Your task to perform on an android device: Clear the cart on walmart.com. Search for usb-b on walmart.com, select the first entry, add it to the cart, then select checkout. Image 0: 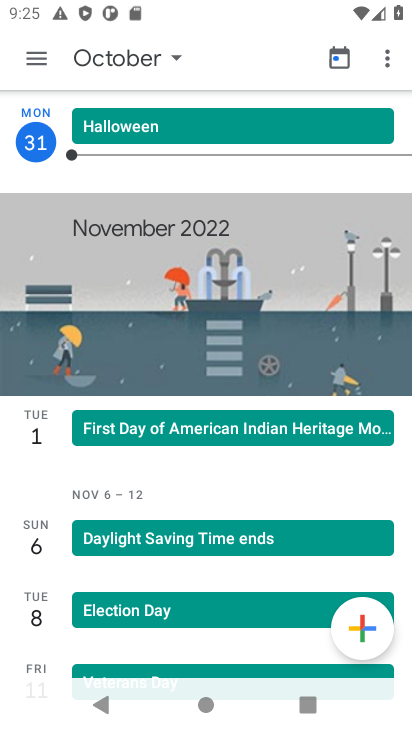
Step 0: press home button
Your task to perform on an android device: Clear the cart on walmart.com. Search for usb-b on walmart.com, select the first entry, add it to the cart, then select checkout. Image 1: 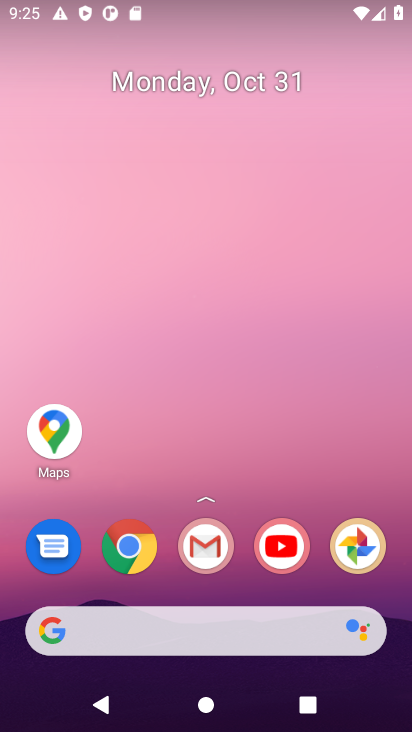
Step 1: click (122, 550)
Your task to perform on an android device: Clear the cart on walmart.com. Search for usb-b on walmart.com, select the first entry, add it to the cart, then select checkout. Image 2: 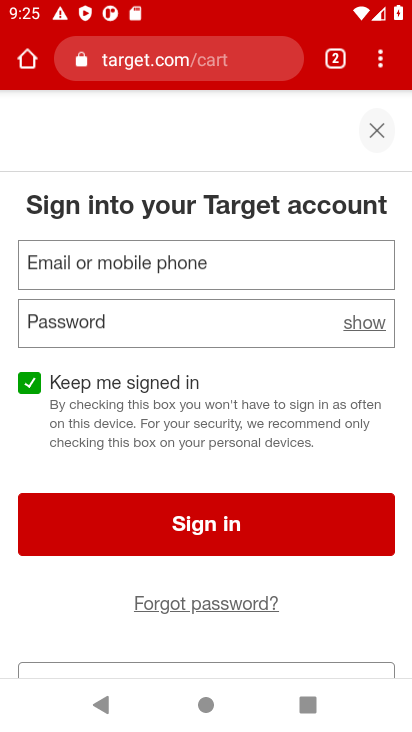
Step 2: click (154, 60)
Your task to perform on an android device: Clear the cart on walmart.com. Search for usb-b on walmart.com, select the first entry, add it to the cart, then select checkout. Image 3: 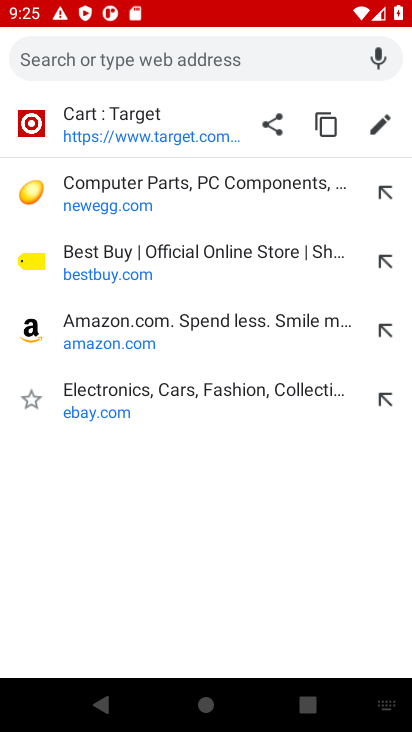
Step 3: type "walmart.com"
Your task to perform on an android device: Clear the cart on walmart.com. Search for usb-b on walmart.com, select the first entry, add it to the cart, then select checkout. Image 4: 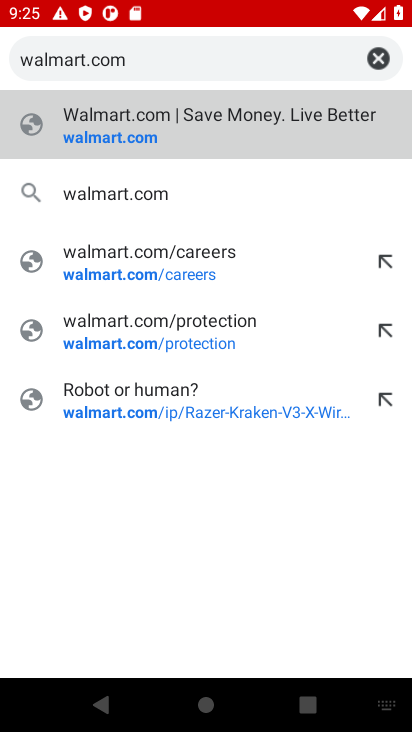
Step 4: press enter
Your task to perform on an android device: Clear the cart on walmart.com. Search for usb-b on walmart.com, select the first entry, add it to the cart, then select checkout. Image 5: 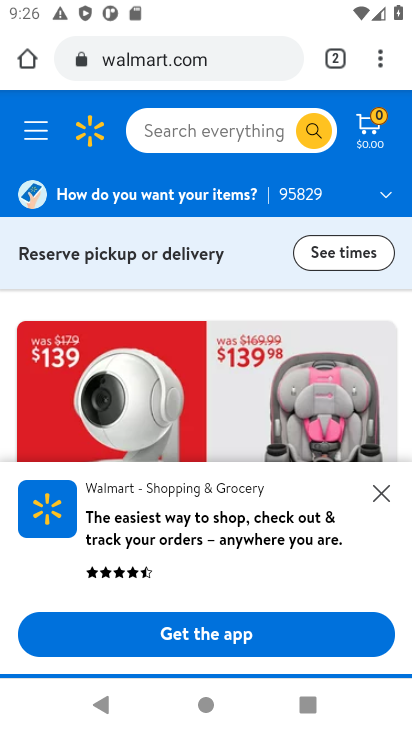
Step 5: click (373, 498)
Your task to perform on an android device: Clear the cart on walmart.com. Search for usb-b on walmart.com, select the first entry, add it to the cart, then select checkout. Image 6: 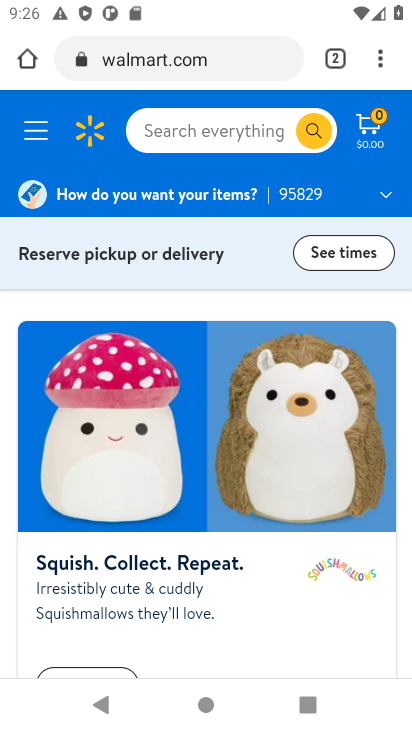
Step 6: drag from (171, 559) to (157, 240)
Your task to perform on an android device: Clear the cart on walmart.com. Search for usb-b on walmart.com, select the first entry, add it to the cart, then select checkout. Image 7: 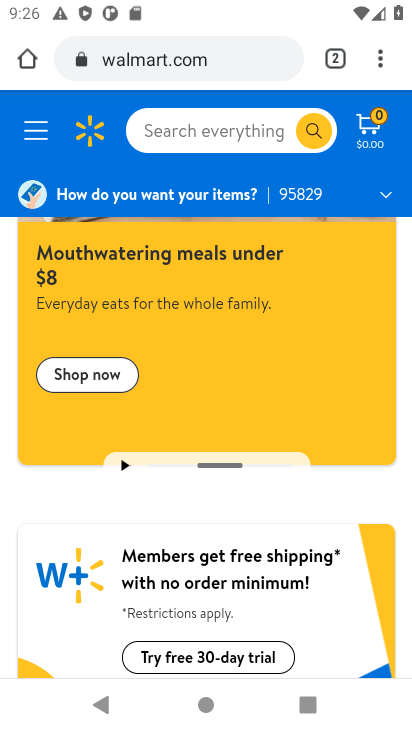
Step 7: drag from (198, 563) to (269, 224)
Your task to perform on an android device: Clear the cart on walmart.com. Search for usb-b on walmart.com, select the first entry, add it to the cart, then select checkout. Image 8: 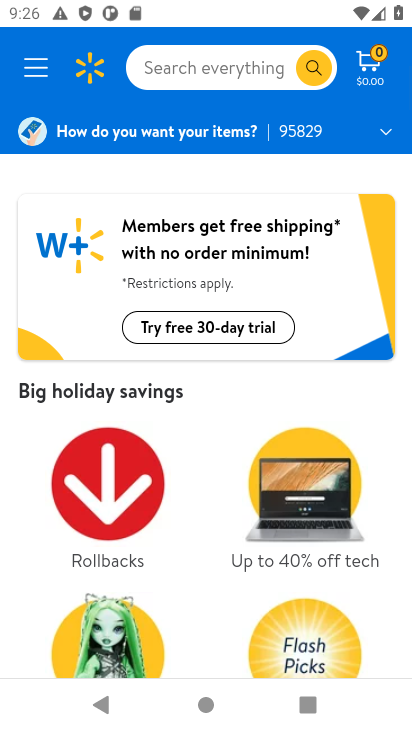
Step 8: drag from (226, 455) to (237, 235)
Your task to perform on an android device: Clear the cart on walmart.com. Search for usb-b on walmart.com, select the first entry, add it to the cart, then select checkout. Image 9: 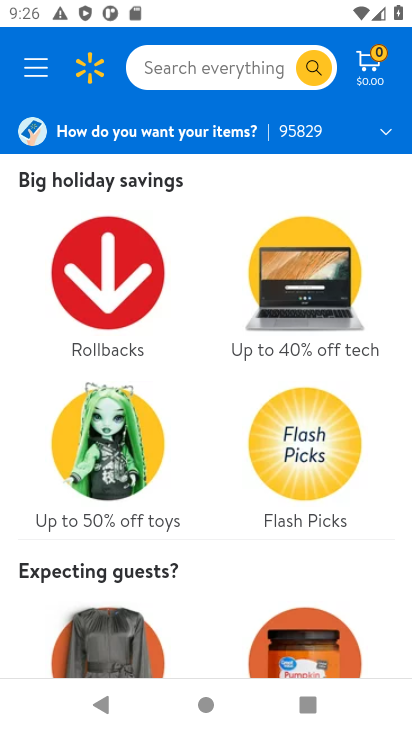
Step 9: drag from (222, 472) to (266, 248)
Your task to perform on an android device: Clear the cart on walmart.com. Search for usb-b on walmart.com, select the first entry, add it to the cart, then select checkout. Image 10: 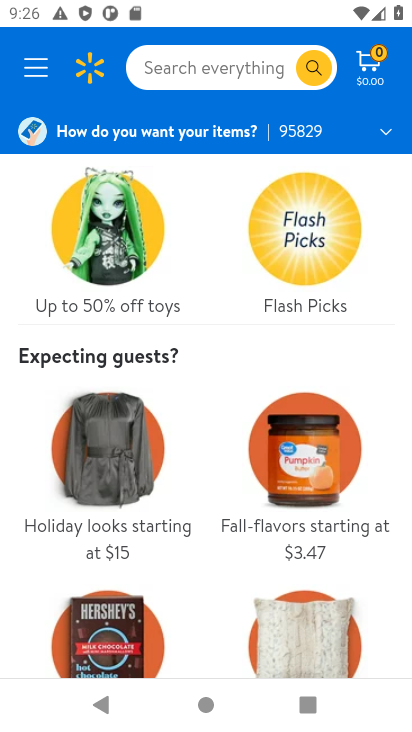
Step 10: click (219, 74)
Your task to perform on an android device: Clear the cart on walmart.com. Search for usb-b on walmart.com, select the first entry, add it to the cart, then select checkout. Image 11: 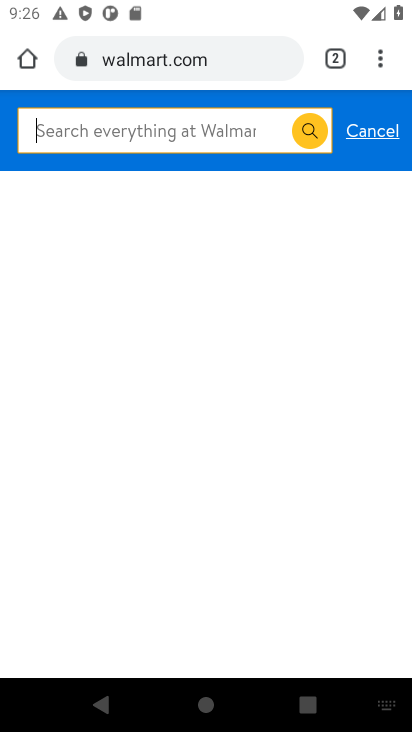
Step 11: type "usb-b"
Your task to perform on an android device: Clear the cart on walmart.com. Search for usb-b on walmart.com, select the first entry, add it to the cart, then select checkout. Image 12: 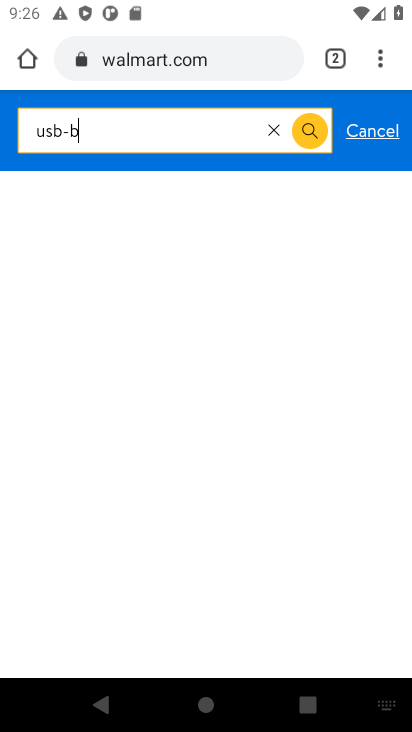
Step 12: press enter
Your task to perform on an android device: Clear the cart on walmart.com. Search for usb-b on walmart.com, select the first entry, add it to the cart, then select checkout. Image 13: 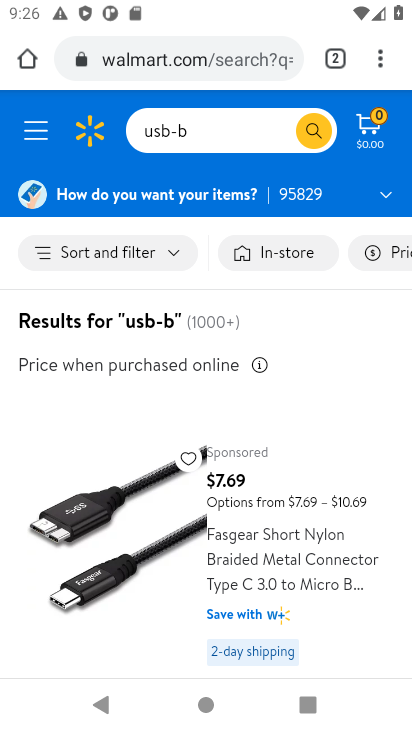
Step 13: drag from (191, 596) to (188, 244)
Your task to perform on an android device: Clear the cart on walmart.com. Search for usb-b on walmart.com, select the first entry, add it to the cart, then select checkout. Image 14: 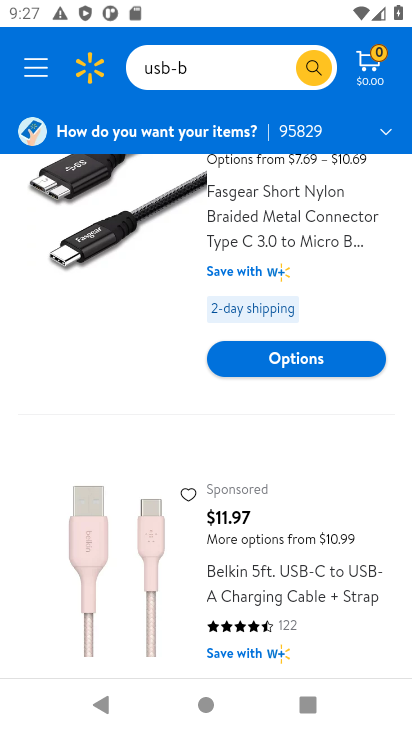
Step 14: drag from (198, 627) to (229, 270)
Your task to perform on an android device: Clear the cart on walmart.com. Search for usb-b on walmart.com, select the first entry, add it to the cart, then select checkout. Image 15: 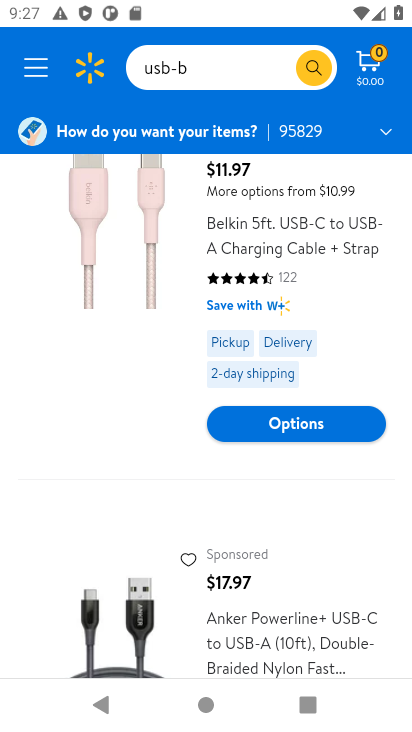
Step 15: drag from (269, 660) to (230, 336)
Your task to perform on an android device: Clear the cart on walmart.com. Search for usb-b on walmart.com, select the first entry, add it to the cart, then select checkout. Image 16: 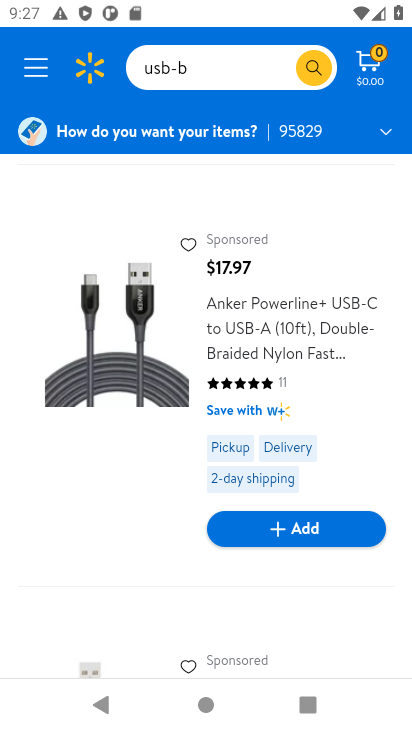
Step 16: click (201, 357)
Your task to perform on an android device: Clear the cart on walmart.com. Search for usb-b on walmart.com, select the first entry, add it to the cart, then select checkout. Image 17: 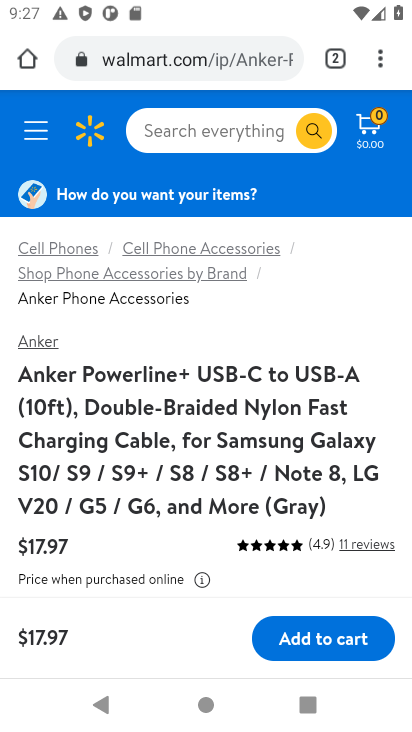
Step 17: click (336, 650)
Your task to perform on an android device: Clear the cart on walmart.com. Search for usb-b on walmart.com, select the first entry, add it to the cart, then select checkout. Image 18: 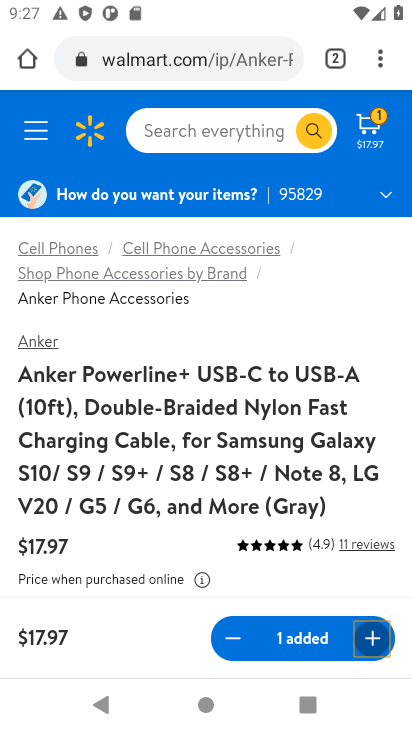
Step 18: drag from (229, 581) to (220, 448)
Your task to perform on an android device: Clear the cart on walmart.com. Search for usb-b on walmart.com, select the first entry, add it to the cart, then select checkout. Image 19: 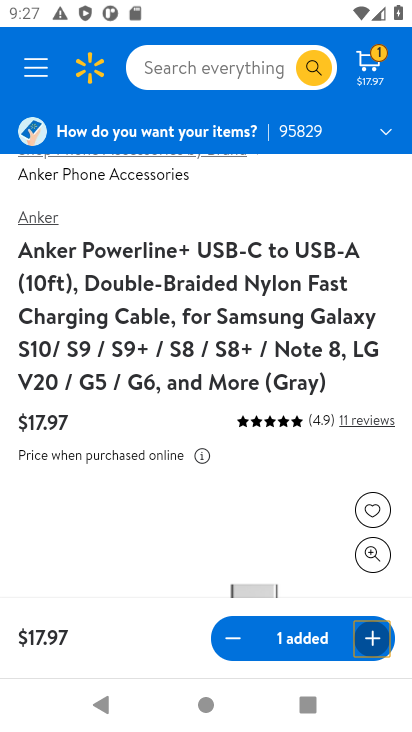
Step 19: click (370, 62)
Your task to perform on an android device: Clear the cart on walmart.com. Search for usb-b on walmart.com, select the first entry, add it to the cart, then select checkout. Image 20: 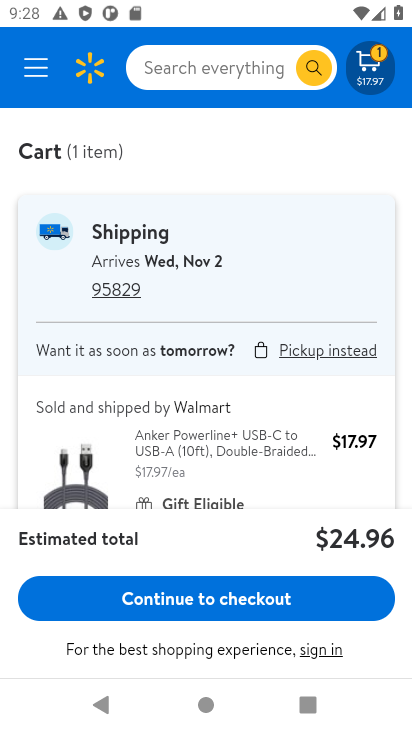
Step 20: click (262, 610)
Your task to perform on an android device: Clear the cart on walmart.com. Search for usb-b on walmart.com, select the first entry, add it to the cart, then select checkout. Image 21: 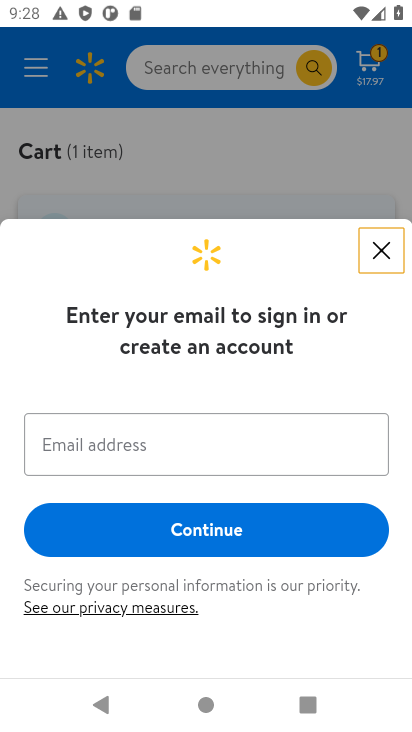
Step 21: task complete